Your task to perform on an android device: Open Google Maps Image 0: 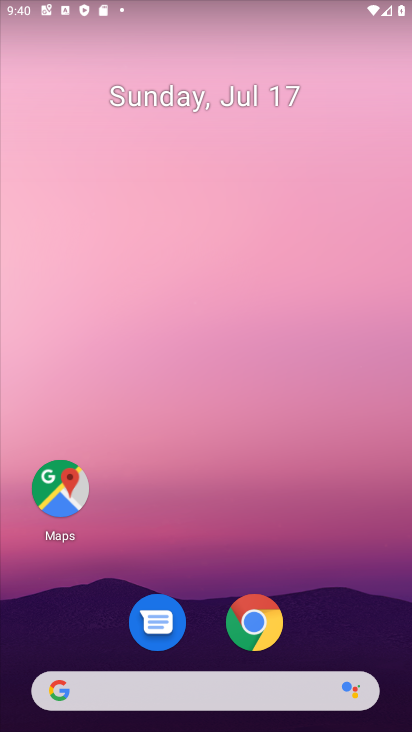
Step 0: click (87, 512)
Your task to perform on an android device: Open Google Maps Image 1: 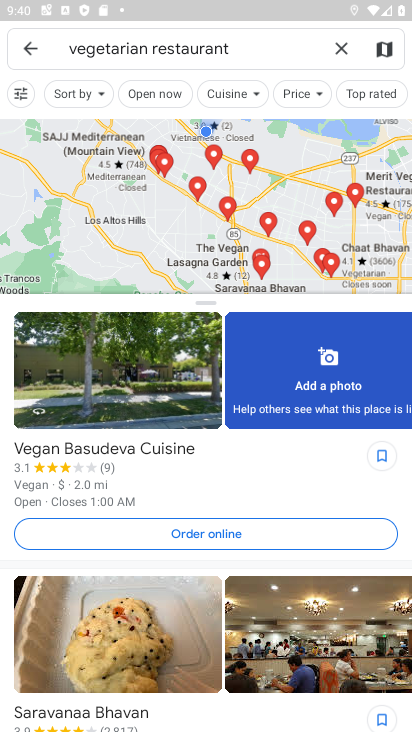
Step 1: click (347, 42)
Your task to perform on an android device: Open Google Maps Image 2: 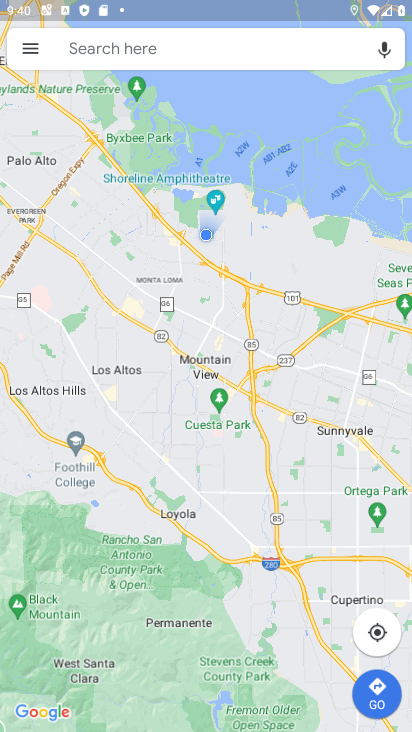
Step 2: task complete